Your task to perform on an android device: Open Maps and search for coffee Image 0: 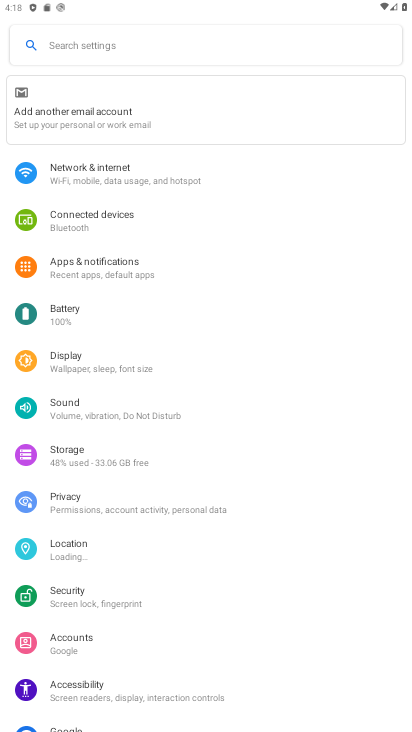
Step 0: press home button
Your task to perform on an android device: Open Maps and search for coffee Image 1: 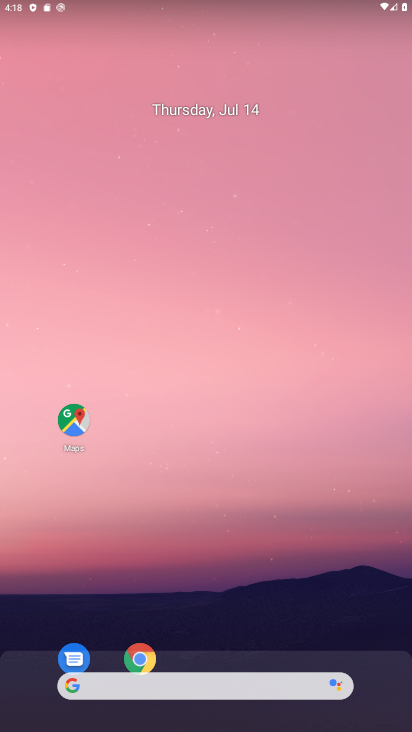
Step 1: click (75, 417)
Your task to perform on an android device: Open Maps and search for coffee Image 2: 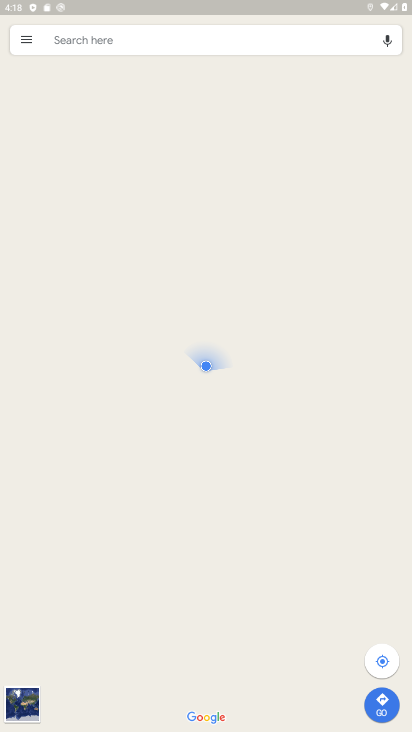
Step 2: click (107, 33)
Your task to perform on an android device: Open Maps and search for coffee Image 3: 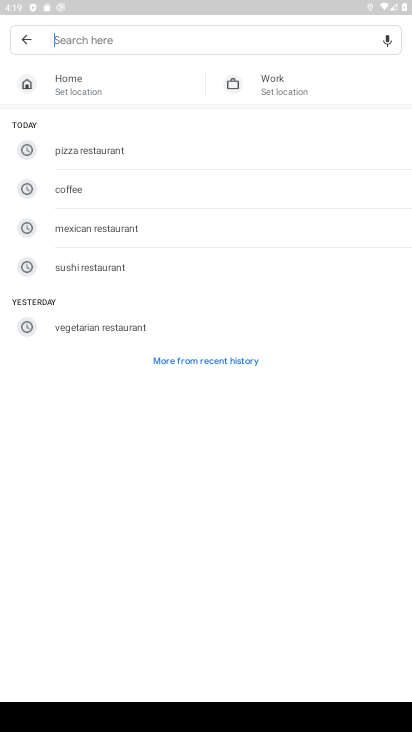
Step 3: type "coffee"
Your task to perform on an android device: Open Maps and search for coffee Image 4: 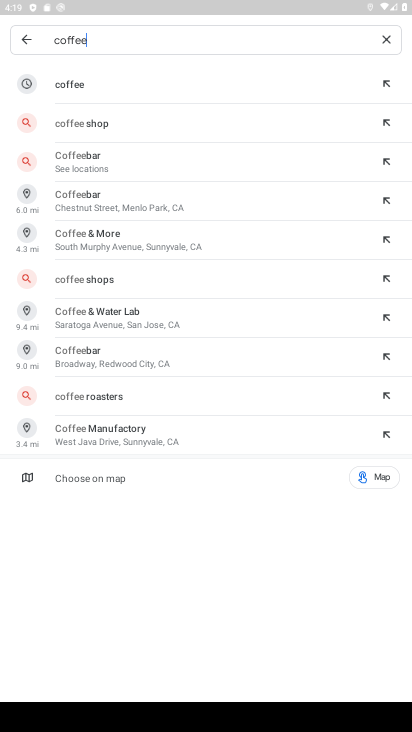
Step 4: click (120, 120)
Your task to perform on an android device: Open Maps and search for coffee Image 5: 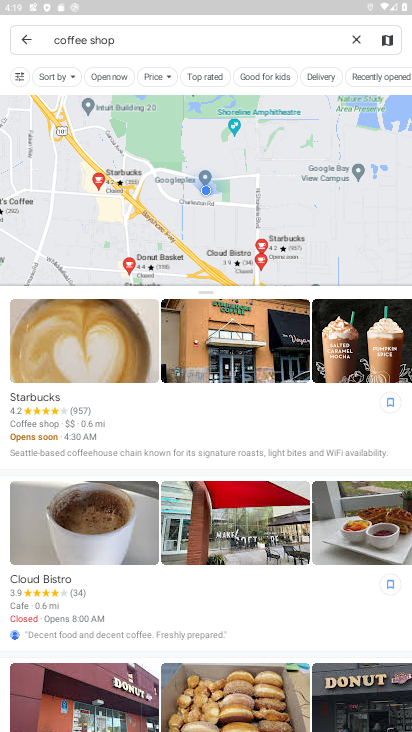
Step 5: task complete